Your task to perform on an android device: add a label to a message in the gmail app Image 0: 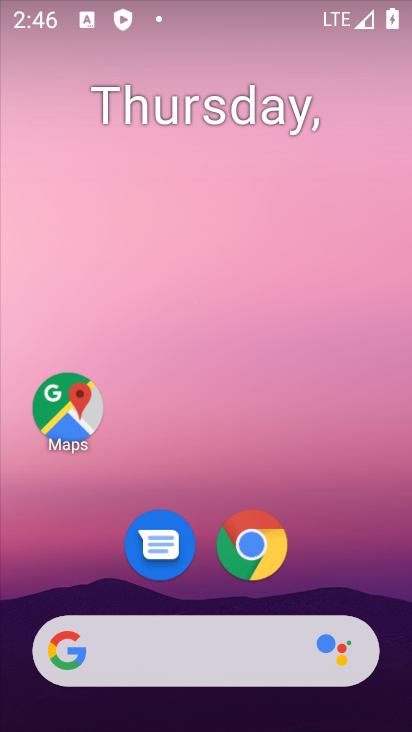
Step 0: drag from (216, 589) to (269, 200)
Your task to perform on an android device: add a label to a message in the gmail app Image 1: 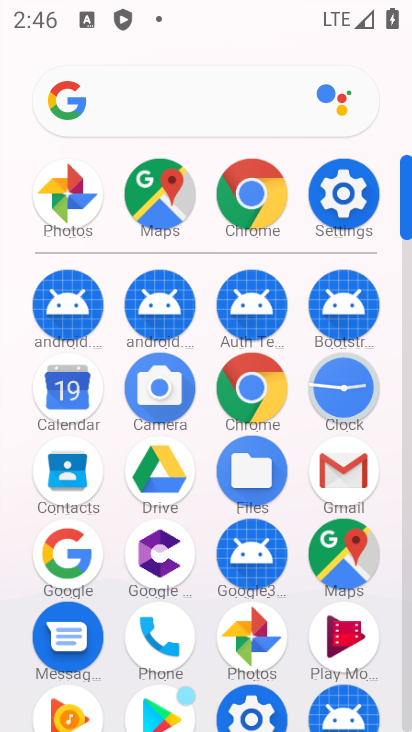
Step 1: click (351, 477)
Your task to perform on an android device: add a label to a message in the gmail app Image 2: 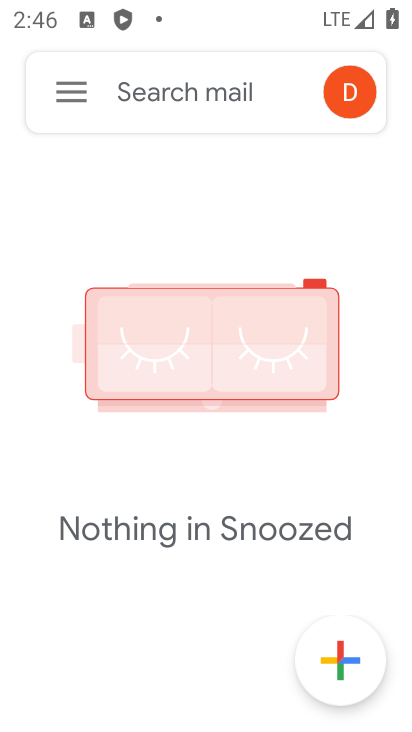
Step 2: task complete